Your task to perform on an android device: Open display settings Image 0: 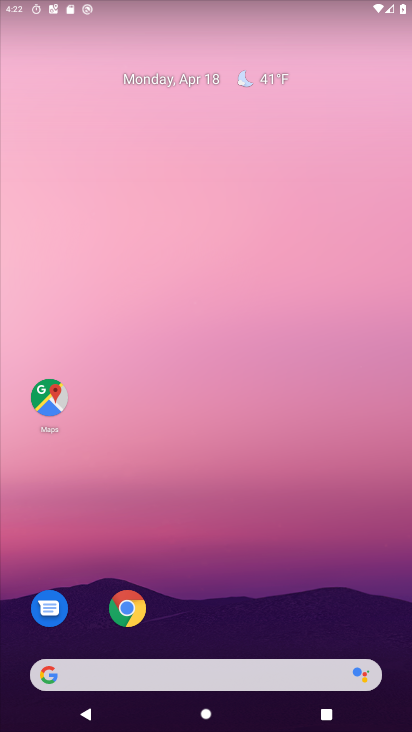
Step 0: drag from (253, 511) to (294, 223)
Your task to perform on an android device: Open display settings Image 1: 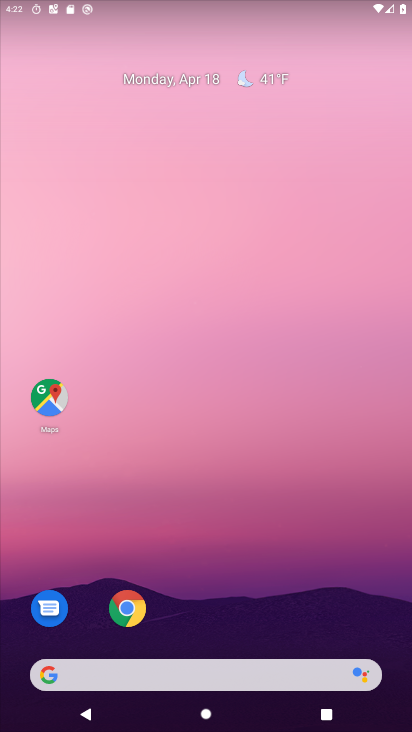
Step 1: drag from (189, 646) to (314, 16)
Your task to perform on an android device: Open display settings Image 2: 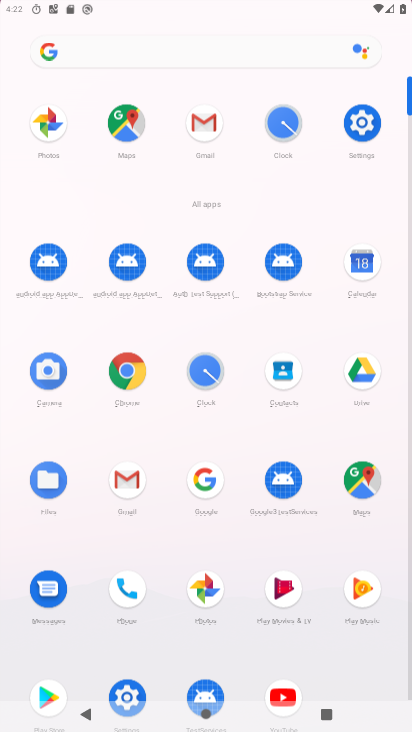
Step 2: click (357, 116)
Your task to perform on an android device: Open display settings Image 3: 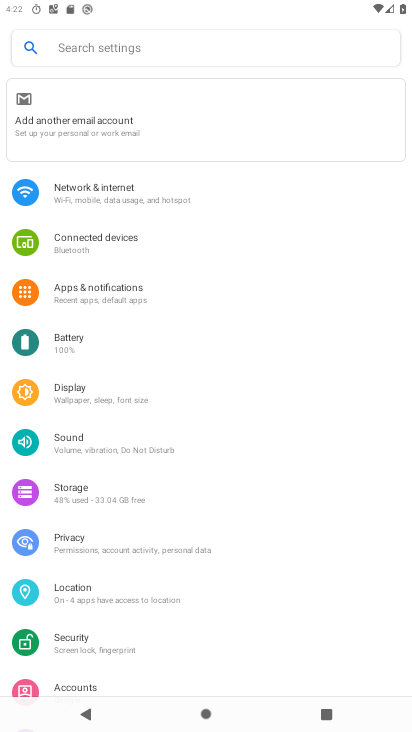
Step 3: click (125, 390)
Your task to perform on an android device: Open display settings Image 4: 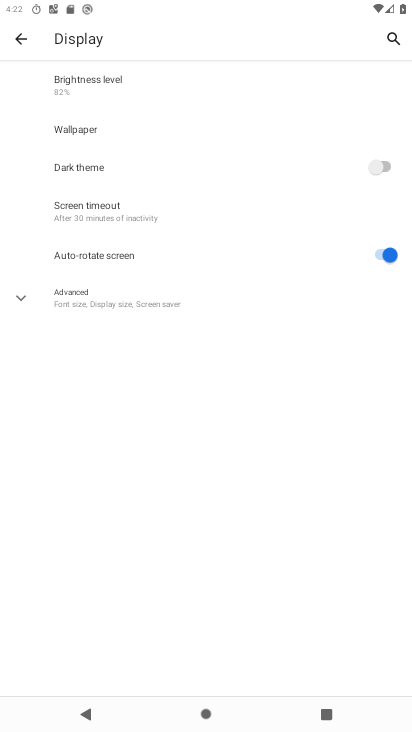
Step 4: click (145, 295)
Your task to perform on an android device: Open display settings Image 5: 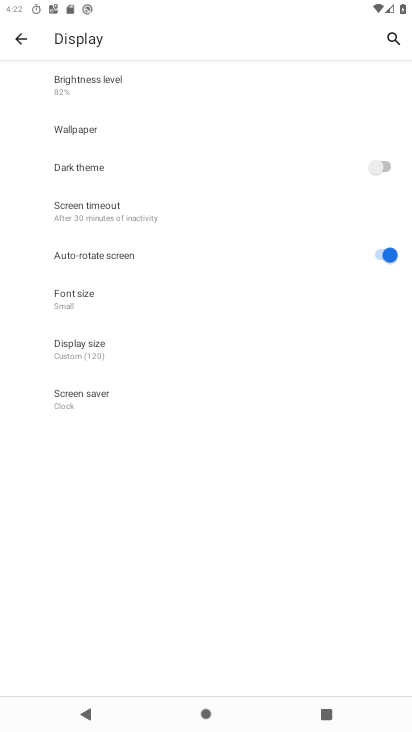
Step 5: task complete